Your task to perform on an android device: Go to wifi settings Image 0: 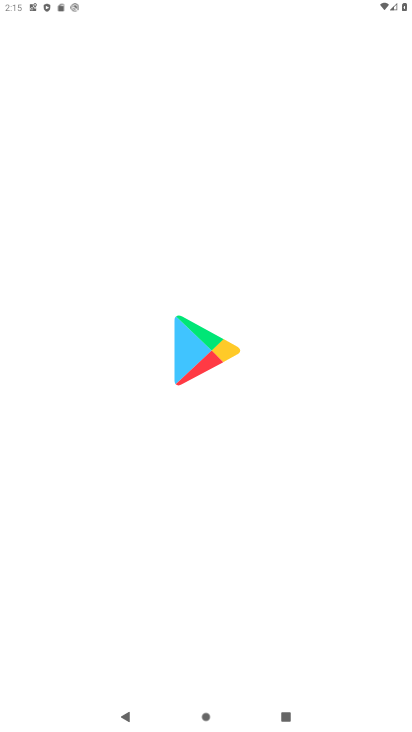
Step 0: press home button
Your task to perform on an android device: Go to wifi settings Image 1: 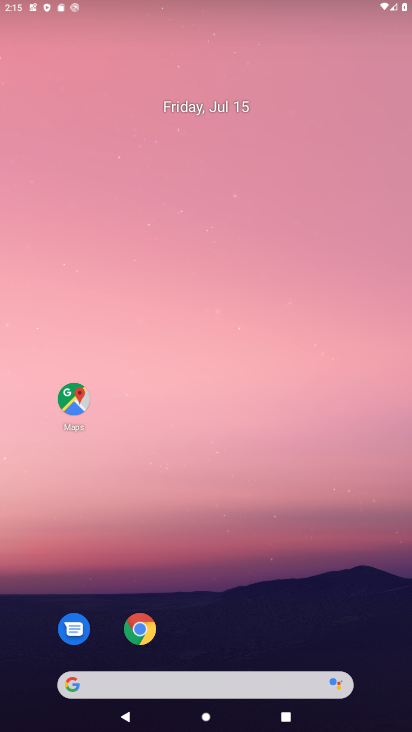
Step 1: drag from (235, 629) to (276, 135)
Your task to perform on an android device: Go to wifi settings Image 2: 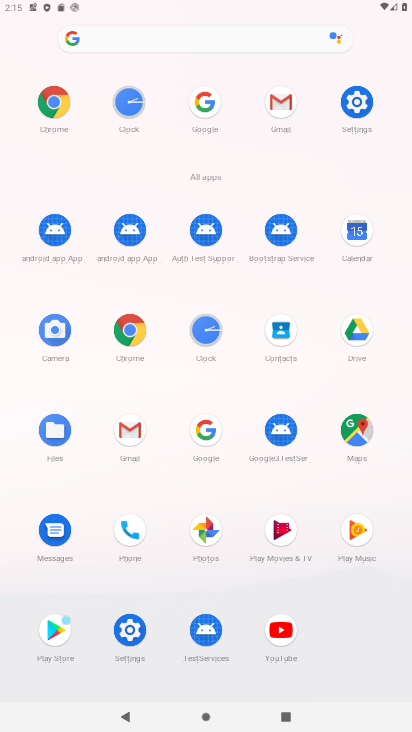
Step 2: click (359, 99)
Your task to perform on an android device: Go to wifi settings Image 3: 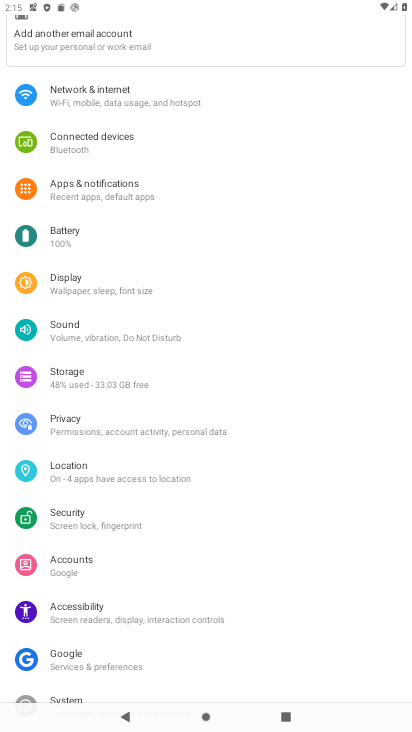
Step 3: click (108, 93)
Your task to perform on an android device: Go to wifi settings Image 4: 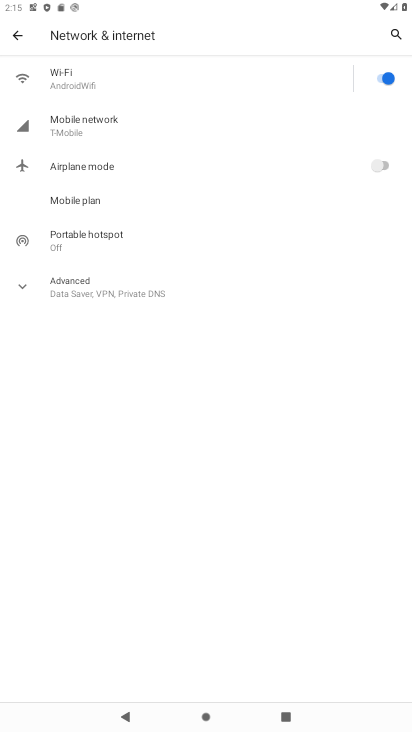
Step 4: click (157, 77)
Your task to perform on an android device: Go to wifi settings Image 5: 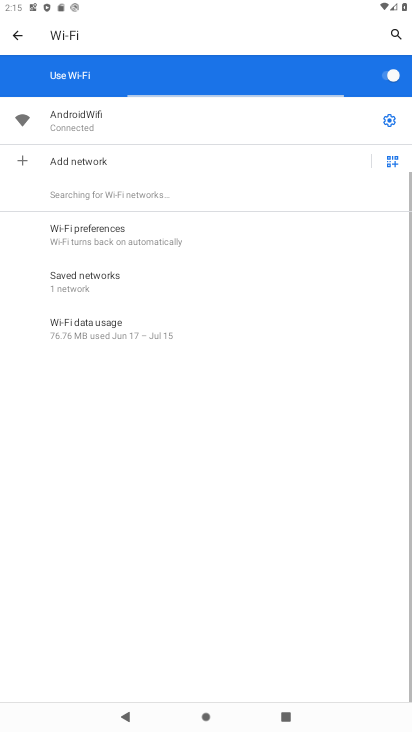
Step 5: click (194, 114)
Your task to perform on an android device: Go to wifi settings Image 6: 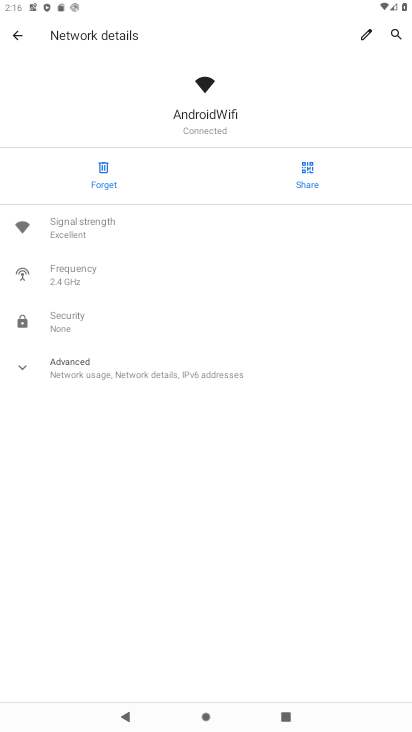
Step 6: task complete